Your task to perform on an android device: Open Chrome and go to settings Image 0: 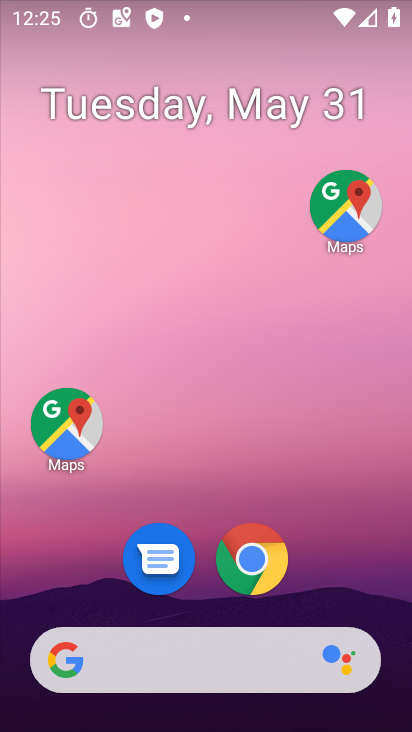
Step 0: drag from (351, 554) to (339, 67)
Your task to perform on an android device: Open Chrome and go to settings Image 1: 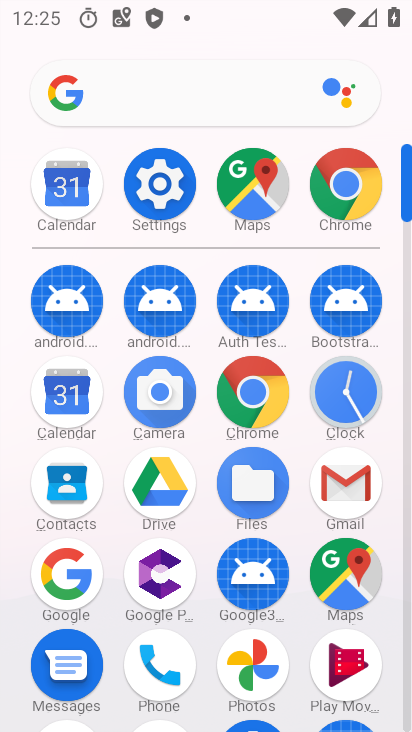
Step 1: click (257, 400)
Your task to perform on an android device: Open Chrome and go to settings Image 2: 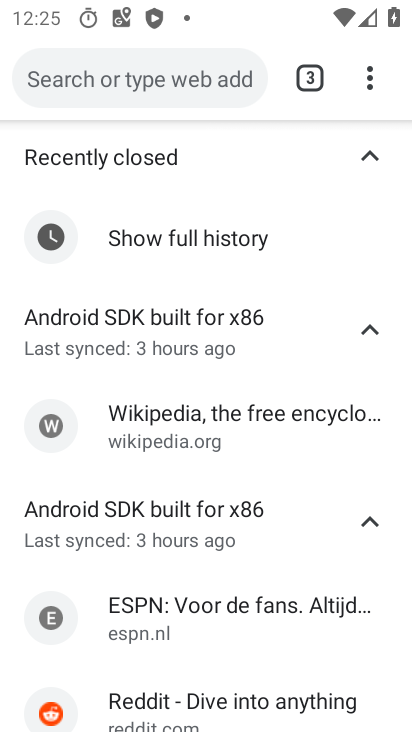
Step 2: task complete